Your task to perform on an android device: Open settings on Google Maps Image 0: 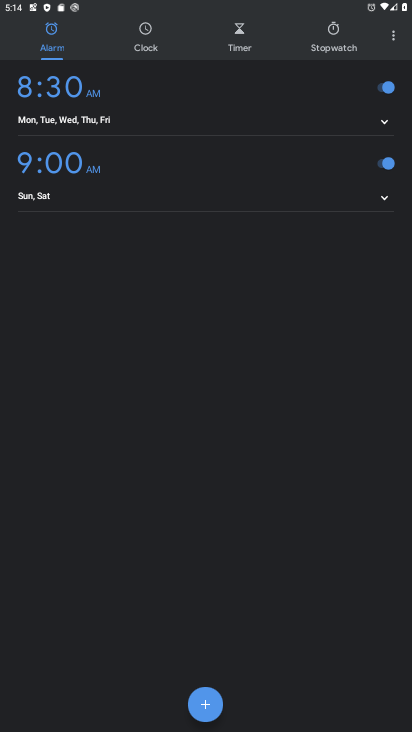
Step 0: press home button
Your task to perform on an android device: Open settings on Google Maps Image 1: 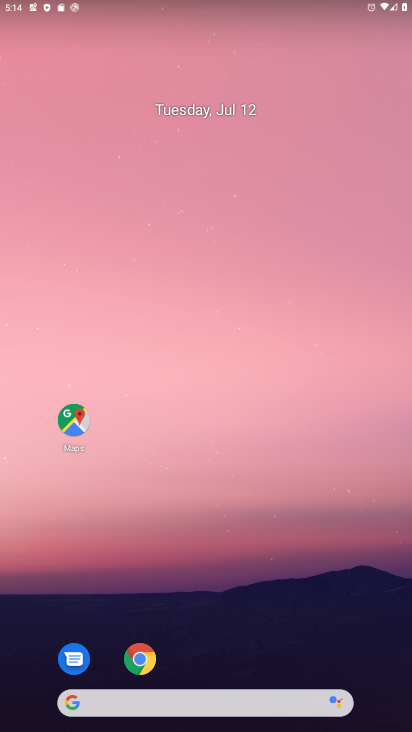
Step 1: click (75, 412)
Your task to perform on an android device: Open settings on Google Maps Image 2: 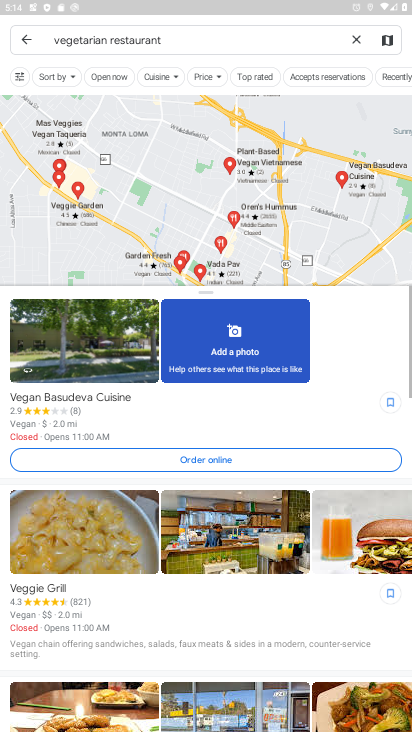
Step 2: click (22, 42)
Your task to perform on an android device: Open settings on Google Maps Image 3: 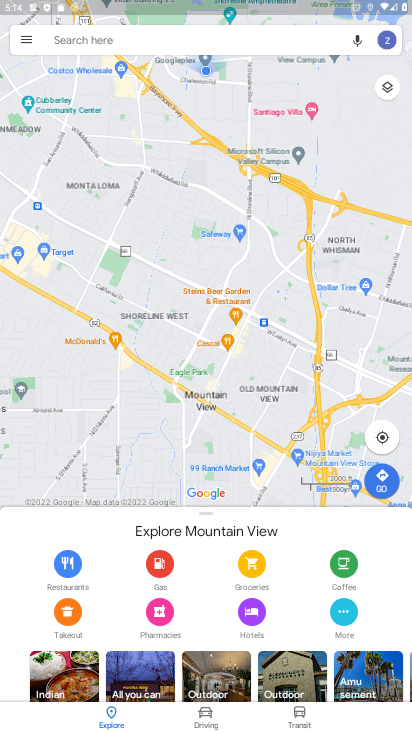
Step 3: click (24, 35)
Your task to perform on an android device: Open settings on Google Maps Image 4: 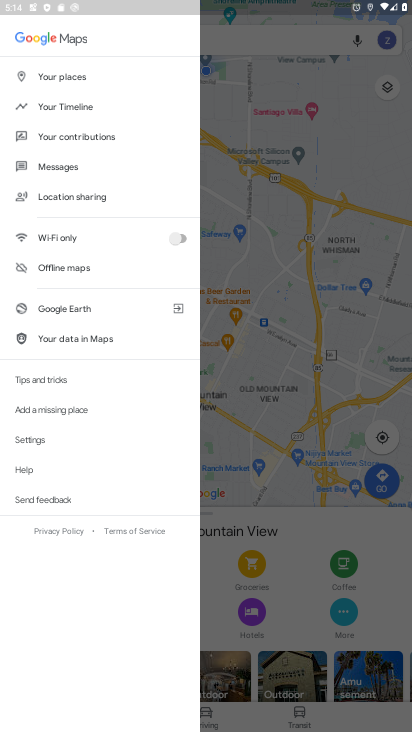
Step 4: click (28, 438)
Your task to perform on an android device: Open settings on Google Maps Image 5: 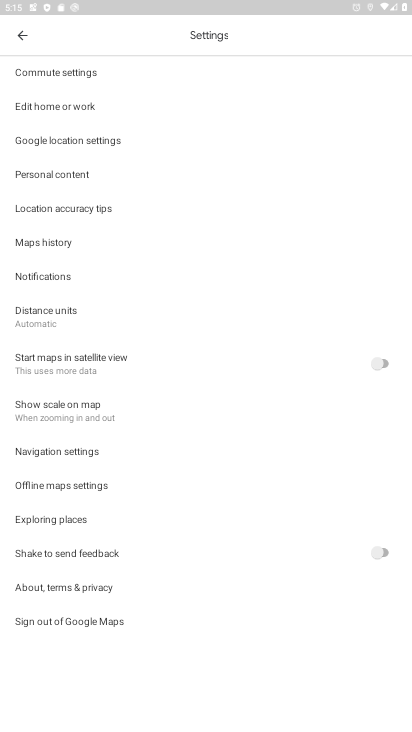
Step 5: task complete